Your task to perform on an android device: check android version Image 0: 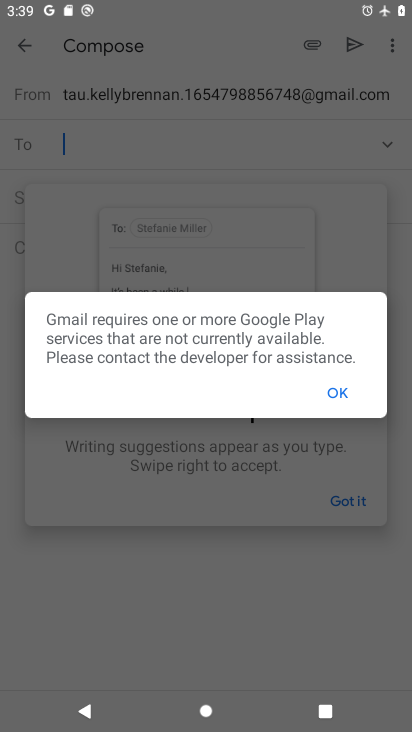
Step 0: press home button
Your task to perform on an android device: check android version Image 1: 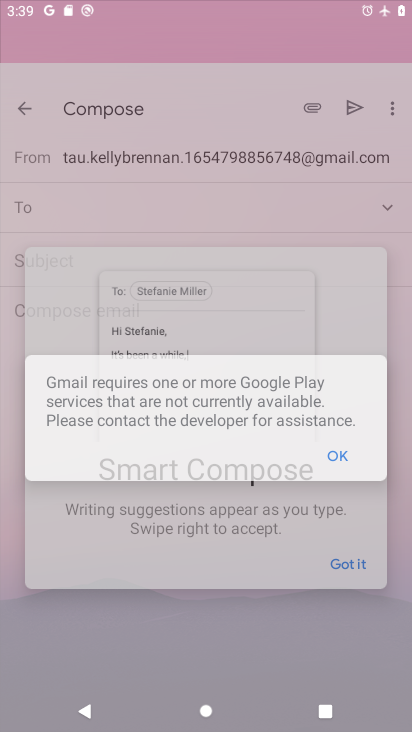
Step 1: drag from (194, 707) to (204, 133)
Your task to perform on an android device: check android version Image 2: 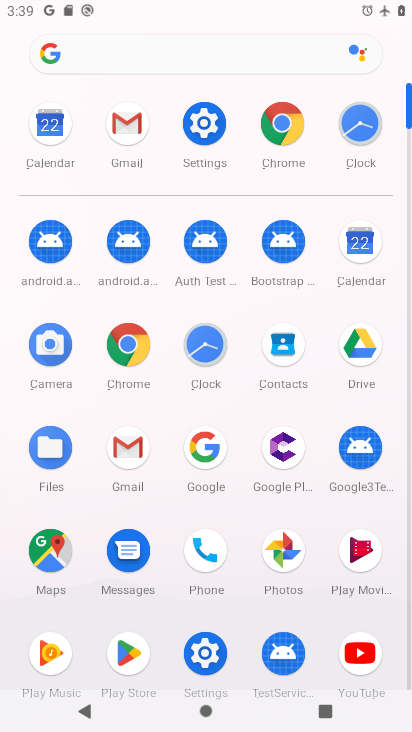
Step 2: click (192, 133)
Your task to perform on an android device: check android version Image 3: 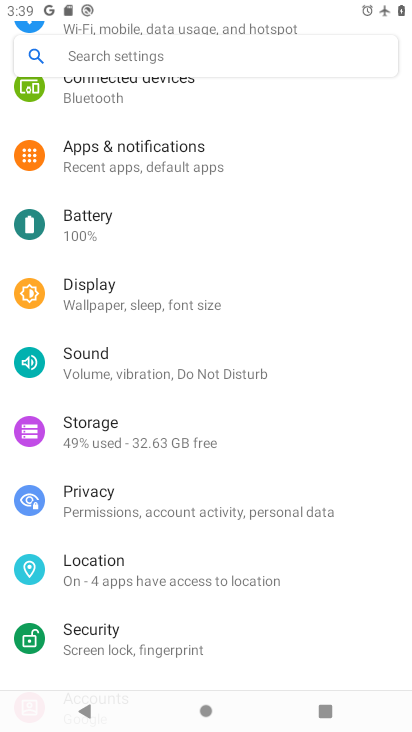
Step 3: drag from (130, 653) to (350, 343)
Your task to perform on an android device: check android version Image 4: 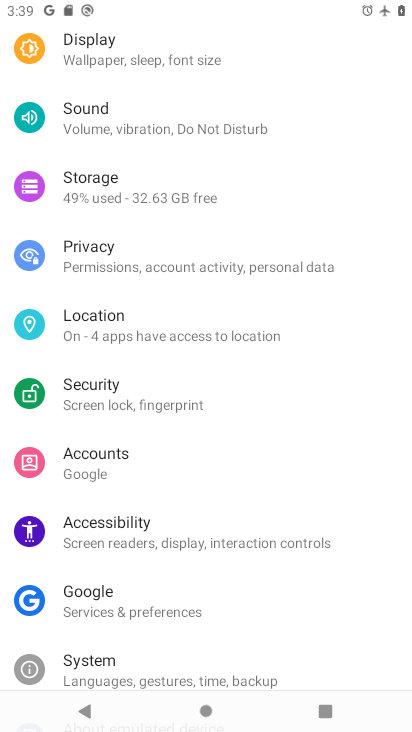
Step 4: drag from (91, 660) to (123, 416)
Your task to perform on an android device: check android version Image 5: 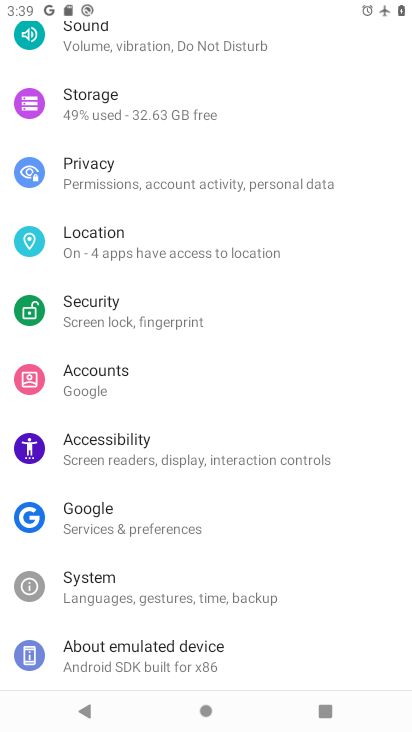
Step 5: click (104, 658)
Your task to perform on an android device: check android version Image 6: 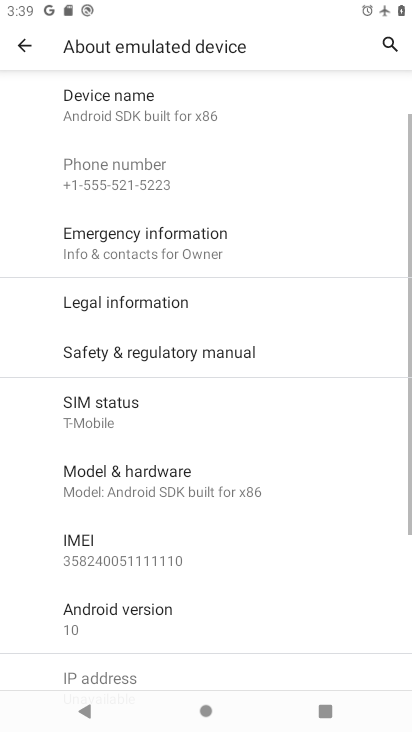
Step 6: click (104, 627)
Your task to perform on an android device: check android version Image 7: 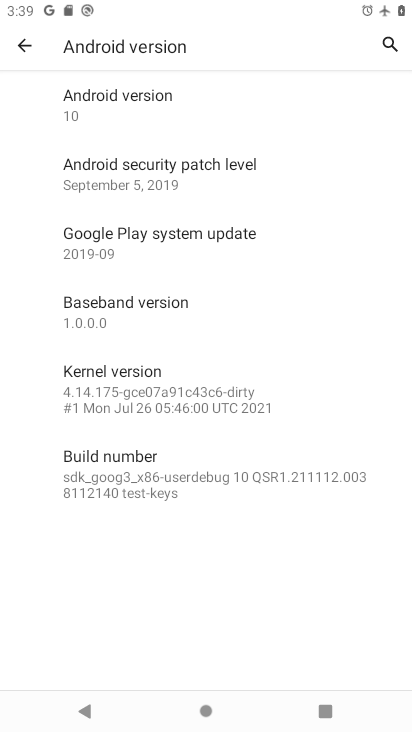
Step 7: task complete